Your task to perform on an android device: turn off improve location accuracy Image 0: 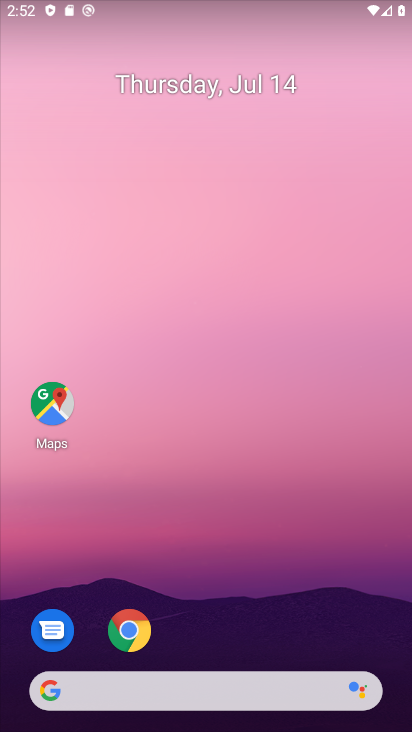
Step 0: drag from (214, 674) to (188, 101)
Your task to perform on an android device: turn off improve location accuracy Image 1: 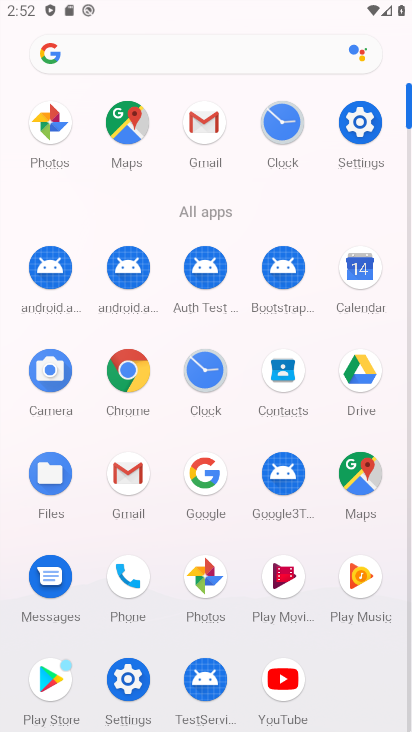
Step 1: click (357, 143)
Your task to perform on an android device: turn off improve location accuracy Image 2: 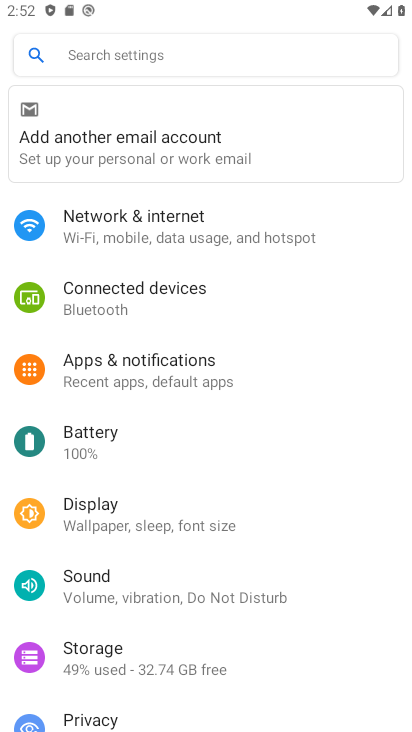
Step 2: drag from (119, 610) to (100, 297)
Your task to perform on an android device: turn off improve location accuracy Image 3: 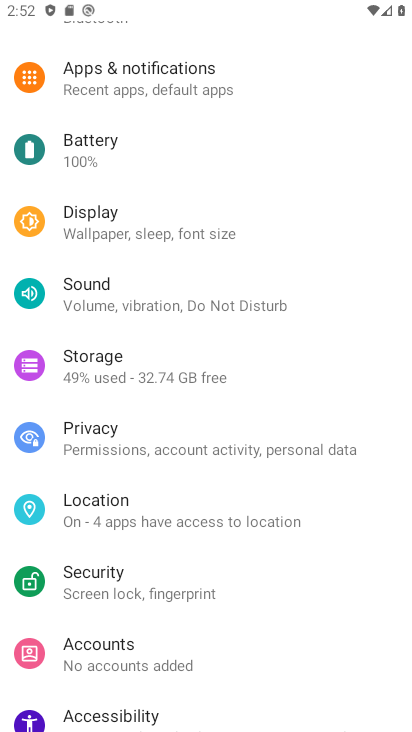
Step 3: drag from (109, 234) to (109, 141)
Your task to perform on an android device: turn off improve location accuracy Image 4: 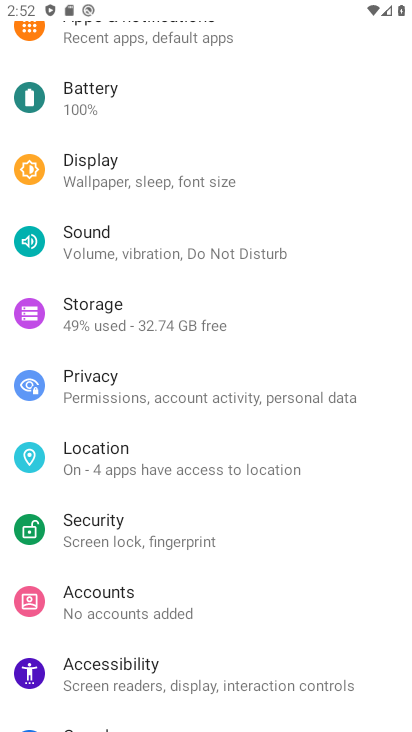
Step 4: click (98, 528)
Your task to perform on an android device: turn off improve location accuracy Image 5: 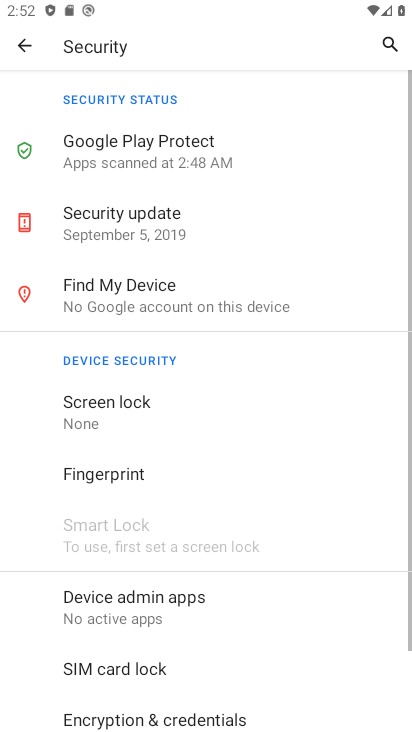
Step 5: click (24, 56)
Your task to perform on an android device: turn off improve location accuracy Image 6: 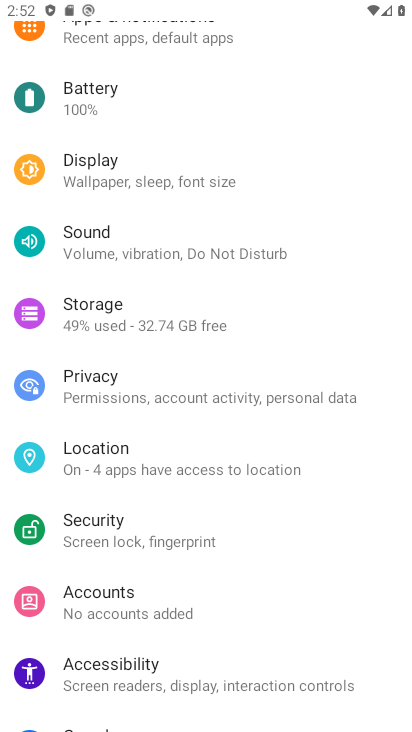
Step 6: click (126, 446)
Your task to perform on an android device: turn off improve location accuracy Image 7: 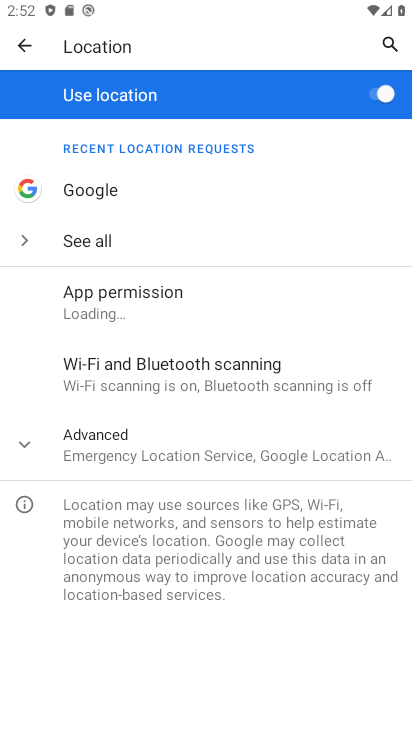
Step 7: click (117, 436)
Your task to perform on an android device: turn off improve location accuracy Image 8: 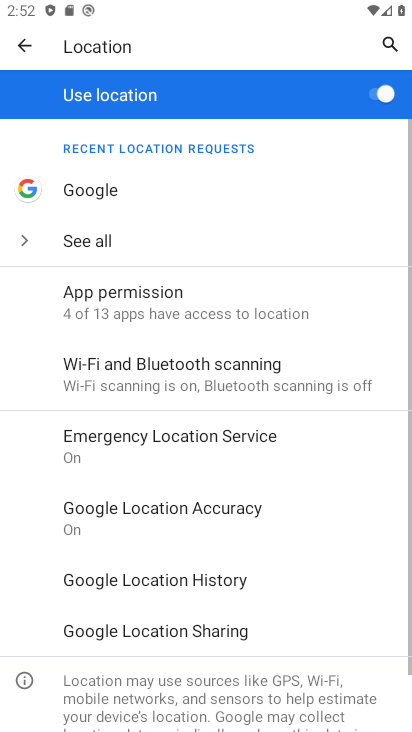
Step 8: click (205, 517)
Your task to perform on an android device: turn off improve location accuracy Image 9: 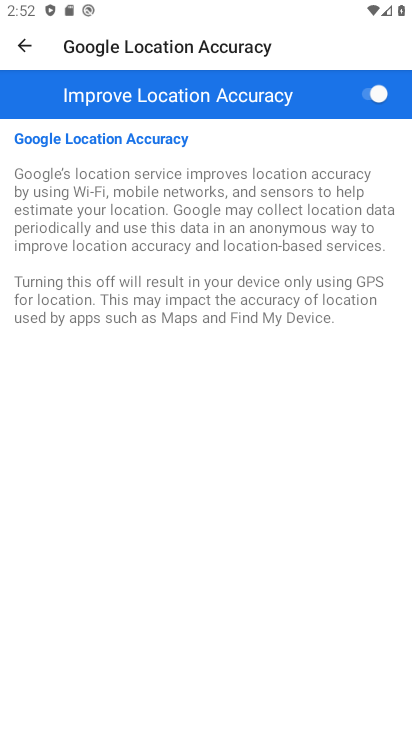
Step 9: click (382, 88)
Your task to perform on an android device: turn off improve location accuracy Image 10: 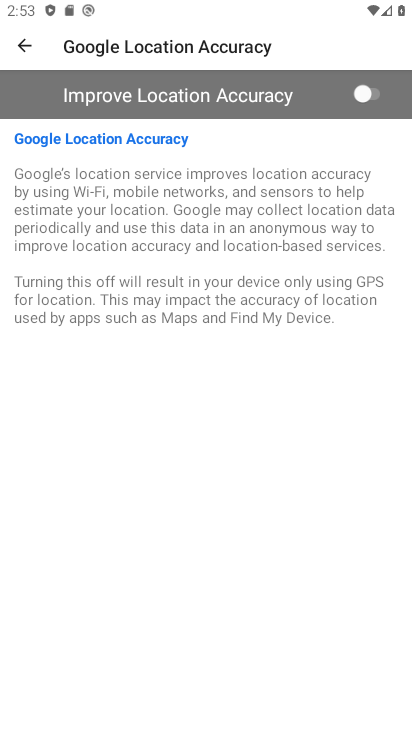
Step 10: task complete